Your task to perform on an android device: Go to display settings Image 0: 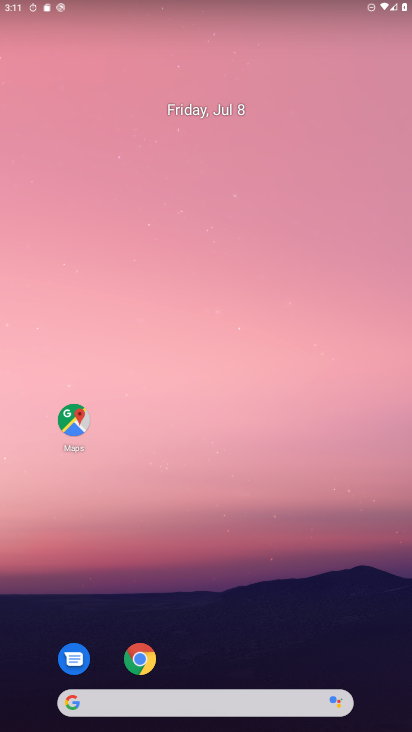
Step 0: drag from (265, 610) to (315, 19)
Your task to perform on an android device: Go to display settings Image 1: 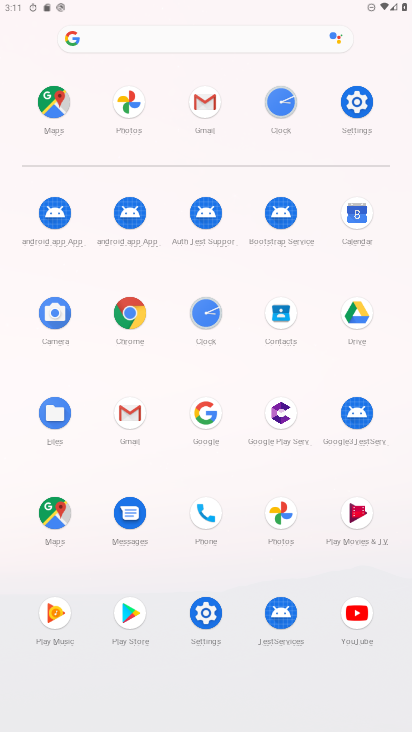
Step 1: click (357, 92)
Your task to perform on an android device: Go to display settings Image 2: 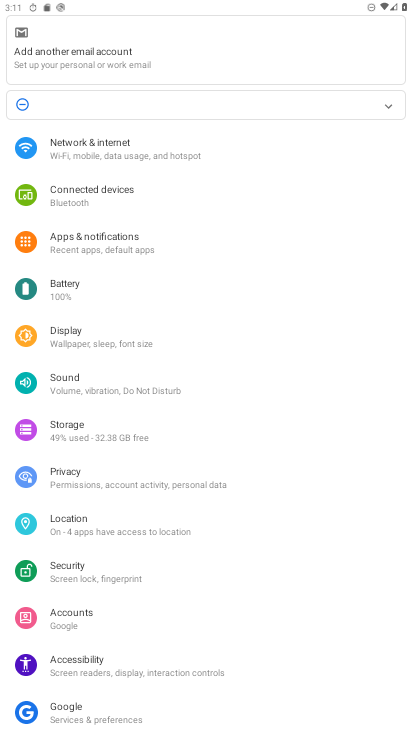
Step 2: click (85, 333)
Your task to perform on an android device: Go to display settings Image 3: 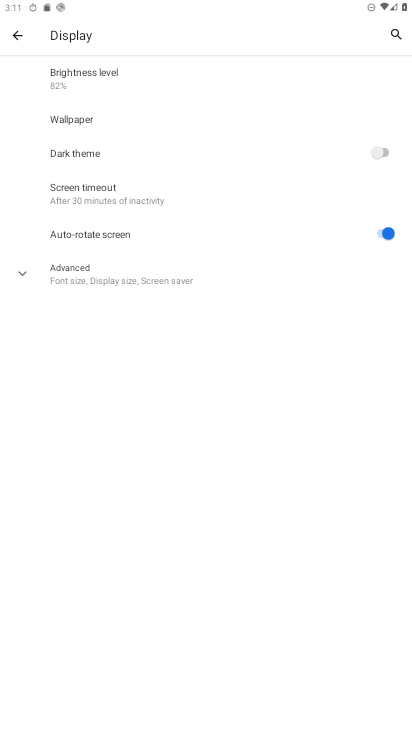
Step 3: task complete